Your task to perform on an android device: change the clock display to digital Image 0: 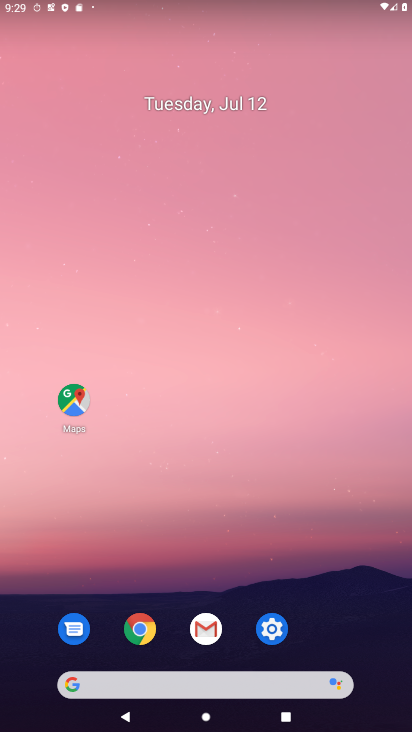
Step 0: press home button
Your task to perform on an android device: change the clock display to digital Image 1: 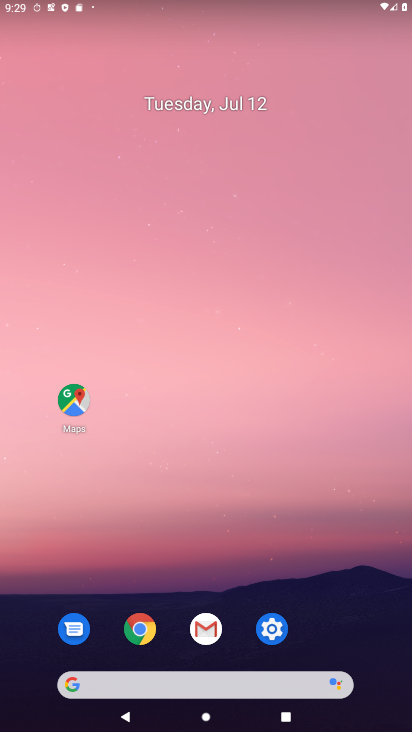
Step 1: click (274, 623)
Your task to perform on an android device: change the clock display to digital Image 2: 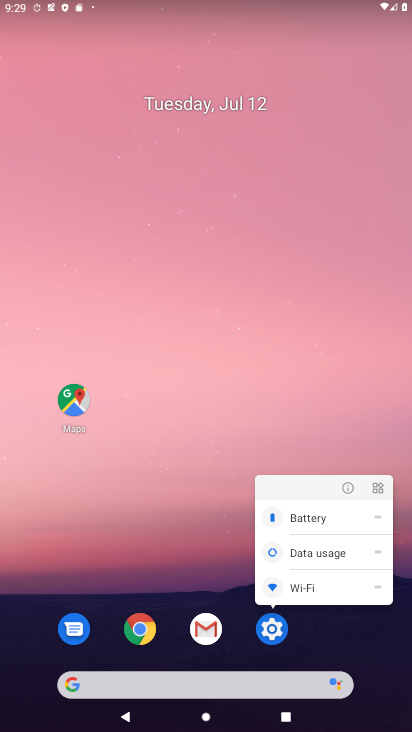
Step 2: click (269, 640)
Your task to perform on an android device: change the clock display to digital Image 3: 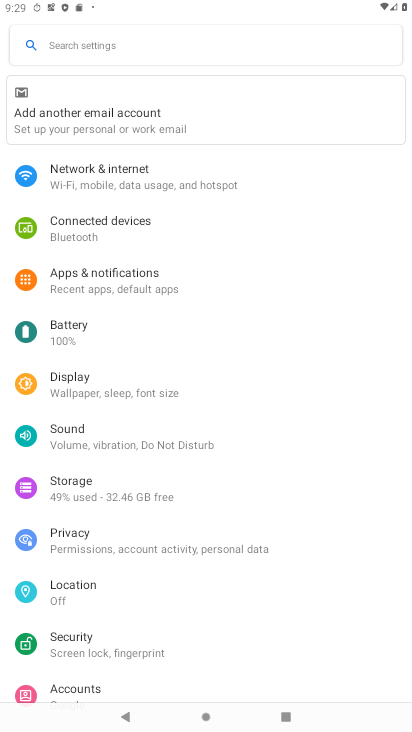
Step 3: press home button
Your task to perform on an android device: change the clock display to digital Image 4: 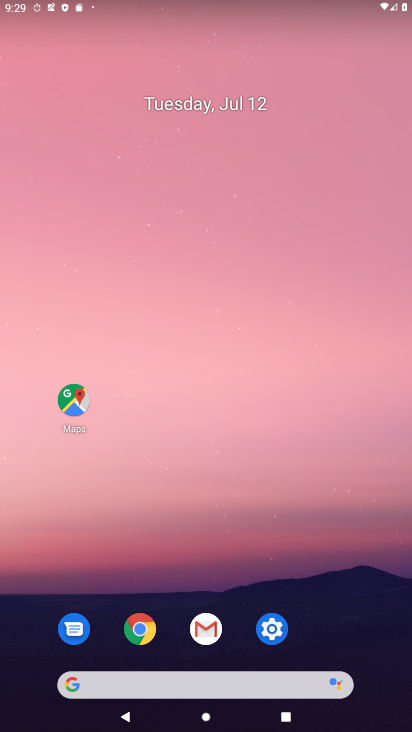
Step 4: drag from (246, 692) to (260, 236)
Your task to perform on an android device: change the clock display to digital Image 5: 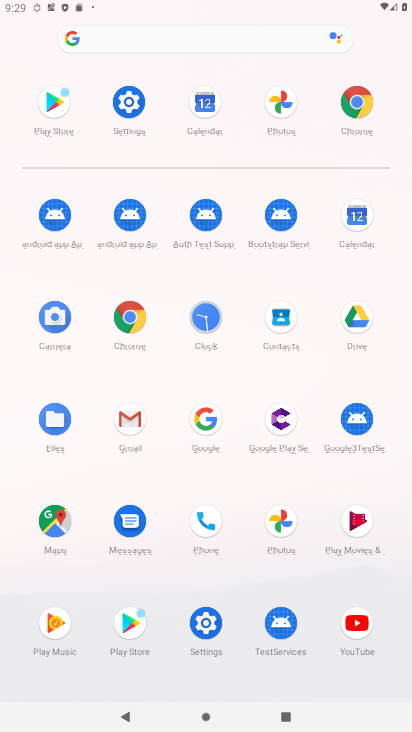
Step 5: click (203, 314)
Your task to perform on an android device: change the clock display to digital Image 6: 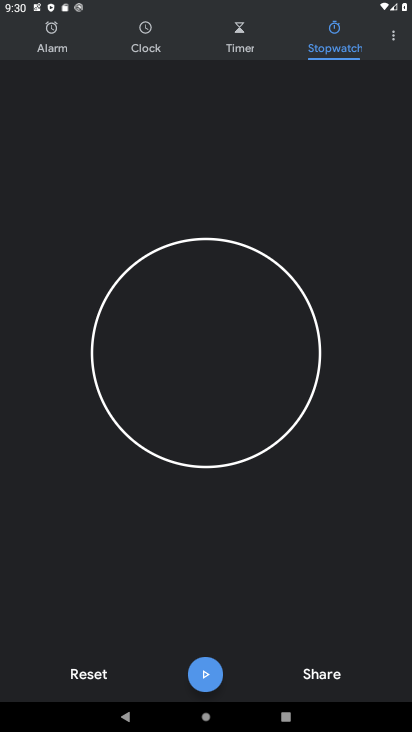
Step 6: click (391, 44)
Your task to perform on an android device: change the clock display to digital Image 7: 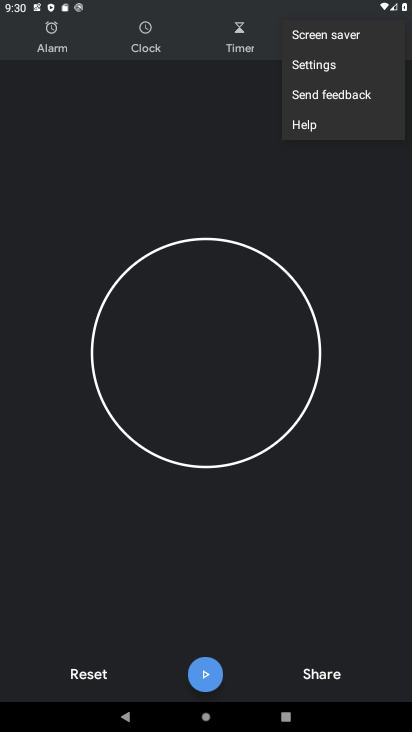
Step 7: click (317, 72)
Your task to perform on an android device: change the clock display to digital Image 8: 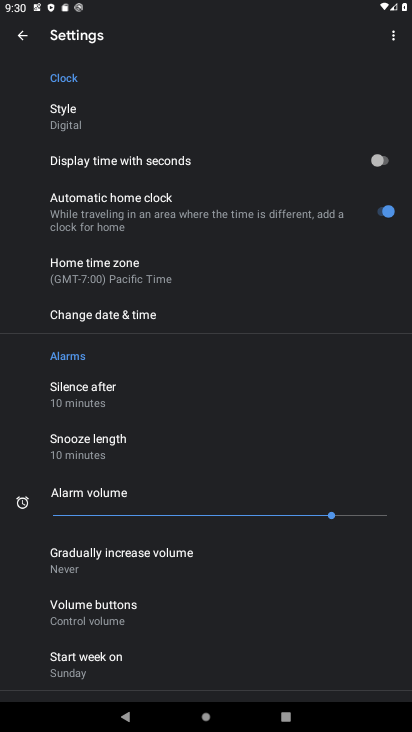
Step 8: click (116, 119)
Your task to perform on an android device: change the clock display to digital Image 9: 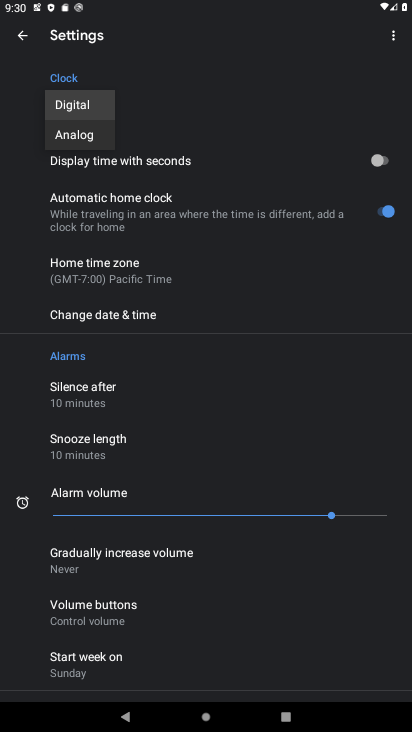
Step 9: click (86, 108)
Your task to perform on an android device: change the clock display to digital Image 10: 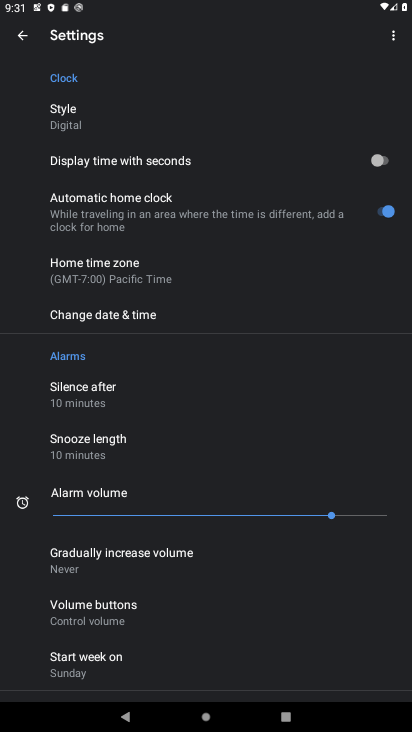
Step 10: task complete